Your task to perform on an android device: What is the recent news? Image 0: 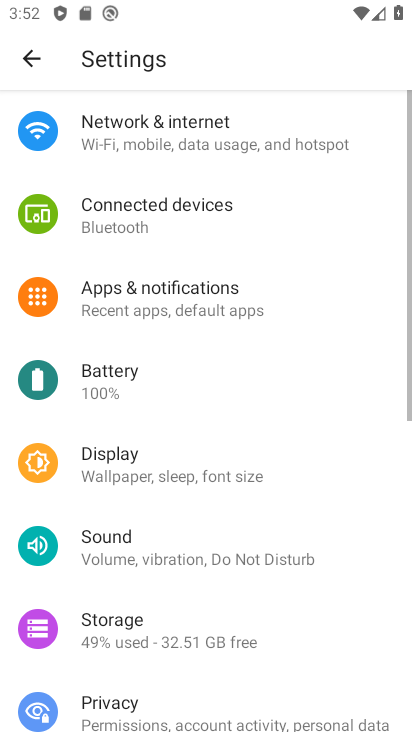
Step 0: press home button
Your task to perform on an android device: What is the recent news? Image 1: 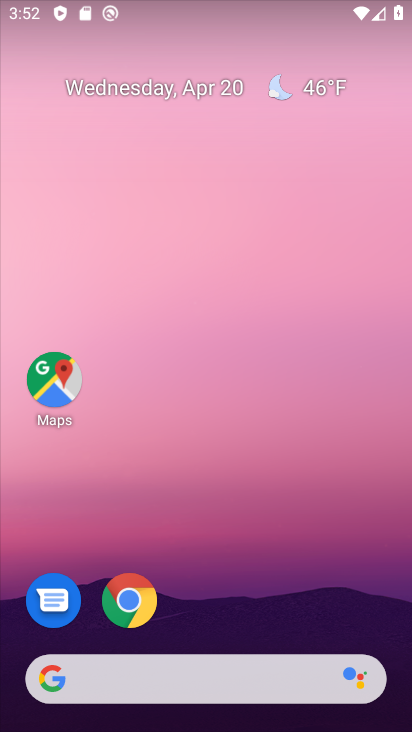
Step 1: drag from (211, 601) to (244, 74)
Your task to perform on an android device: What is the recent news? Image 2: 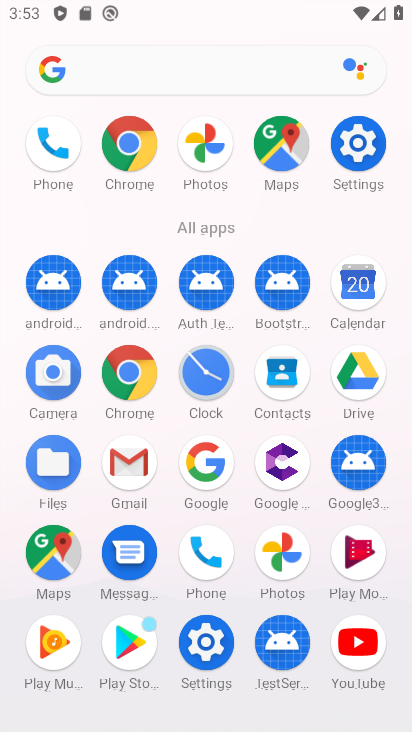
Step 2: click (206, 466)
Your task to perform on an android device: What is the recent news? Image 3: 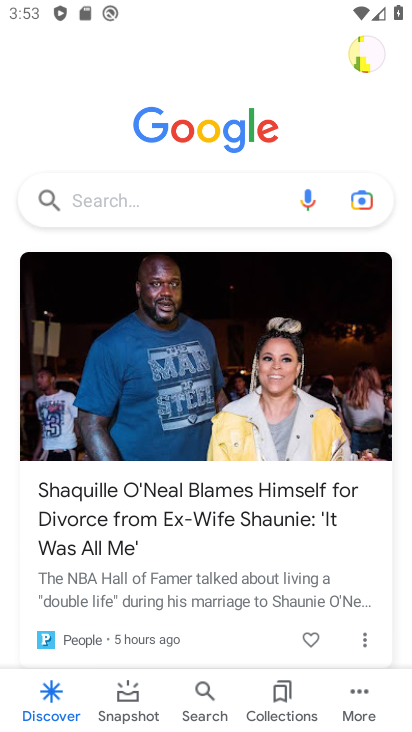
Step 3: task complete